Your task to perform on an android device: change the upload size in google photos Image 0: 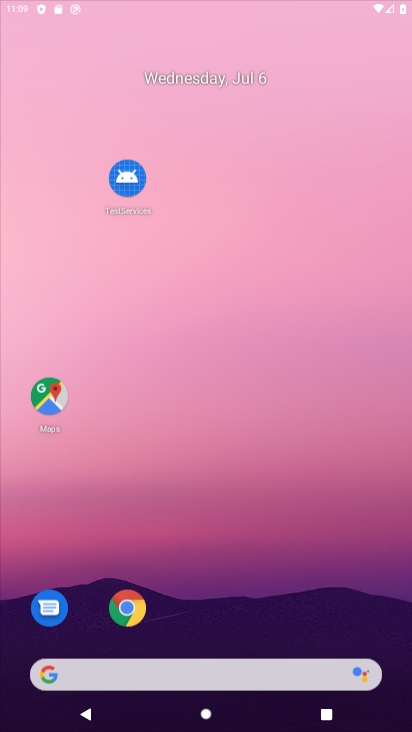
Step 0: click (220, 161)
Your task to perform on an android device: change the upload size in google photos Image 1: 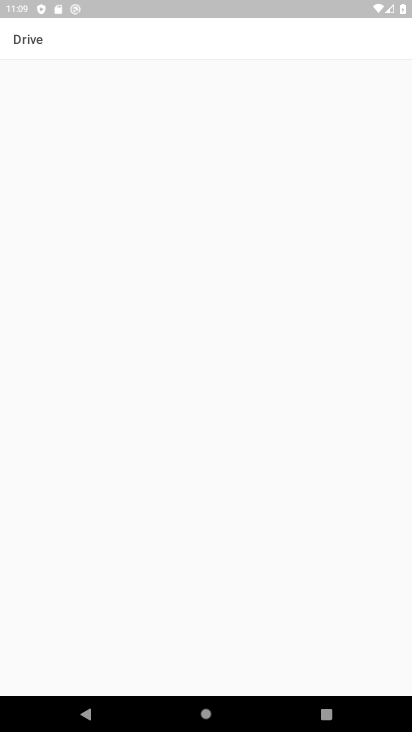
Step 1: drag from (300, 696) to (291, 312)
Your task to perform on an android device: change the upload size in google photos Image 2: 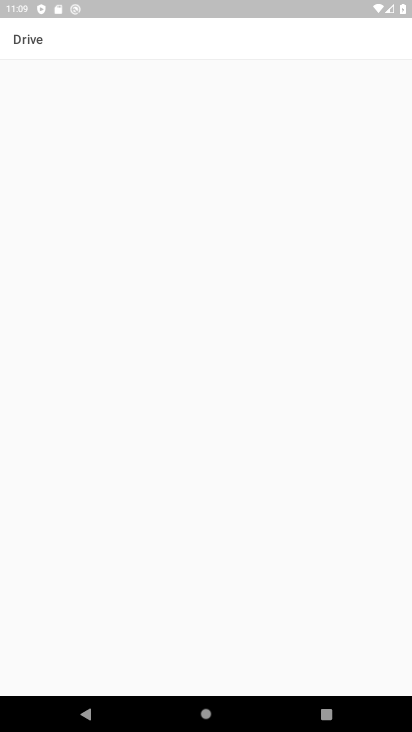
Step 2: press back button
Your task to perform on an android device: change the upload size in google photos Image 3: 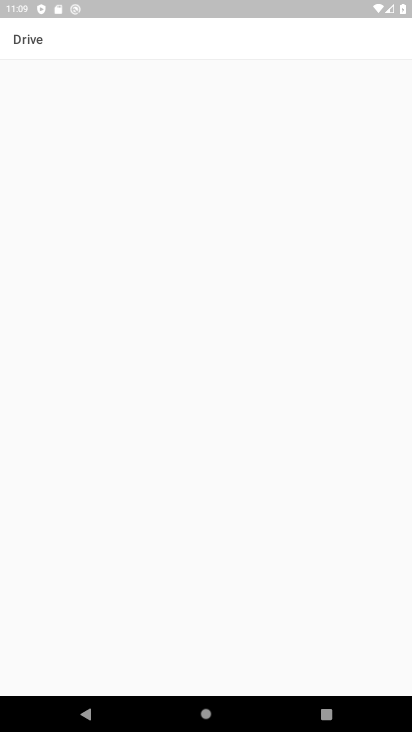
Step 3: press back button
Your task to perform on an android device: change the upload size in google photos Image 4: 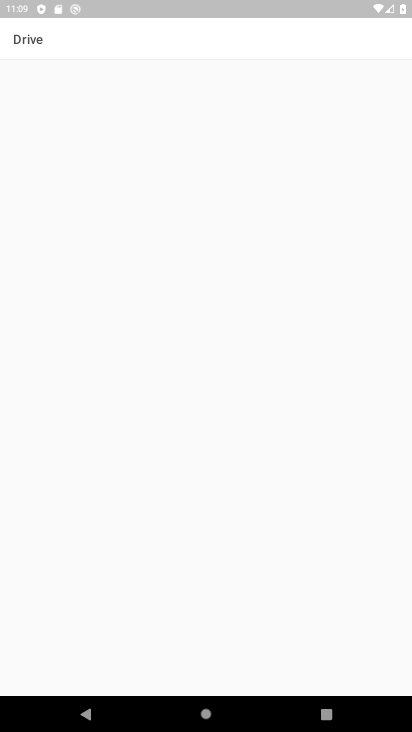
Step 4: press home button
Your task to perform on an android device: change the upload size in google photos Image 5: 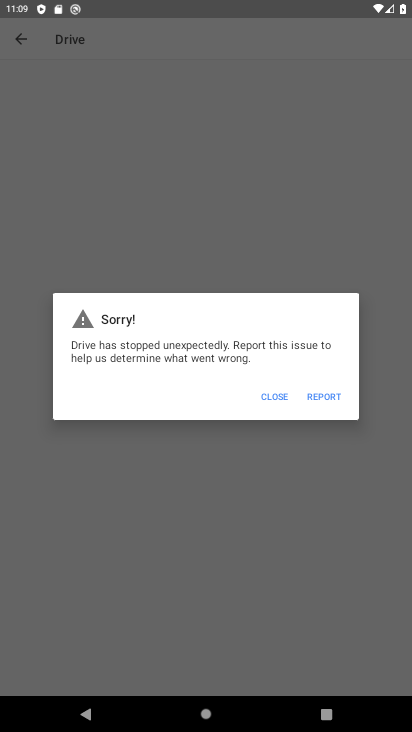
Step 5: press home button
Your task to perform on an android device: change the upload size in google photos Image 6: 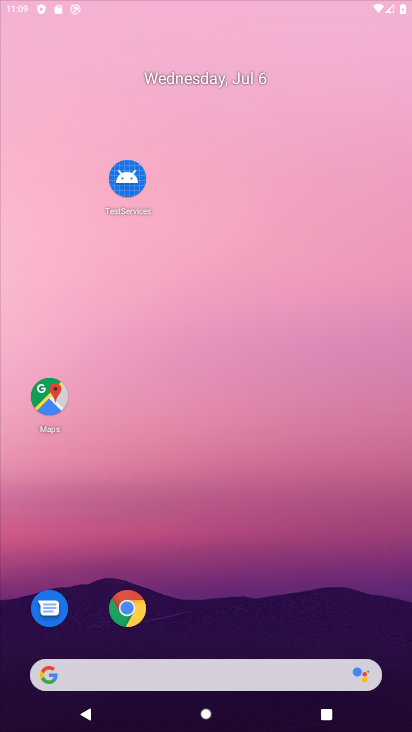
Step 6: press back button
Your task to perform on an android device: change the upload size in google photos Image 7: 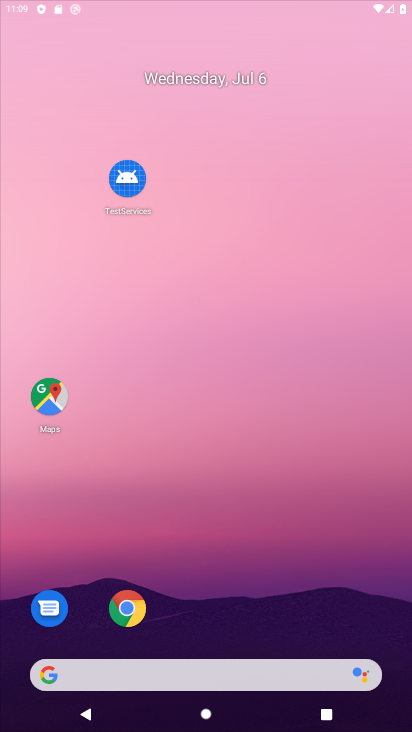
Step 7: press home button
Your task to perform on an android device: change the upload size in google photos Image 8: 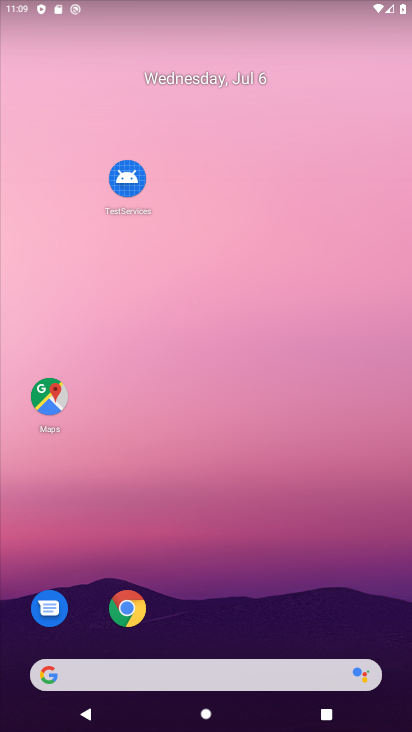
Step 8: drag from (221, 684) to (46, 148)
Your task to perform on an android device: change the upload size in google photos Image 9: 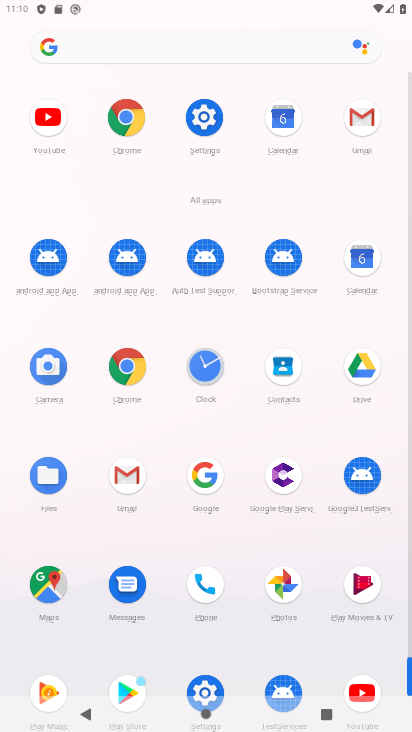
Step 9: click (284, 588)
Your task to perform on an android device: change the upload size in google photos Image 10: 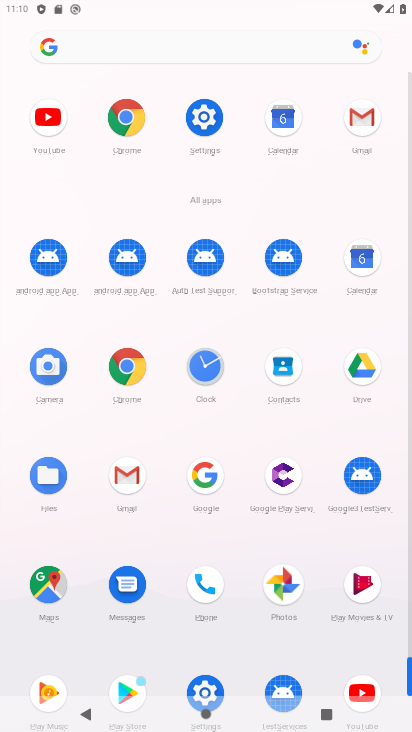
Step 10: click (295, 600)
Your task to perform on an android device: change the upload size in google photos Image 11: 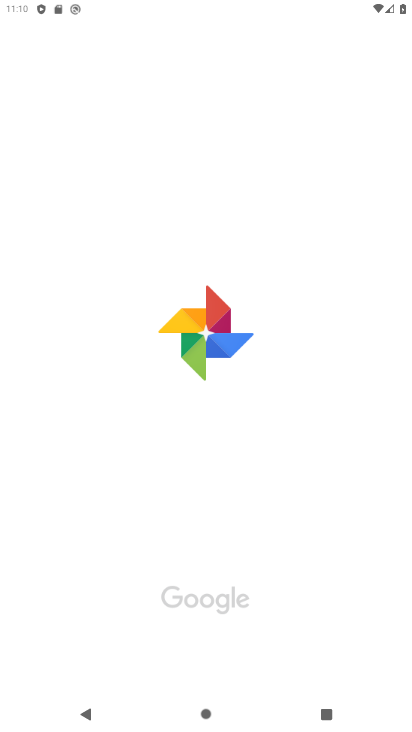
Step 11: click (296, 602)
Your task to perform on an android device: change the upload size in google photos Image 12: 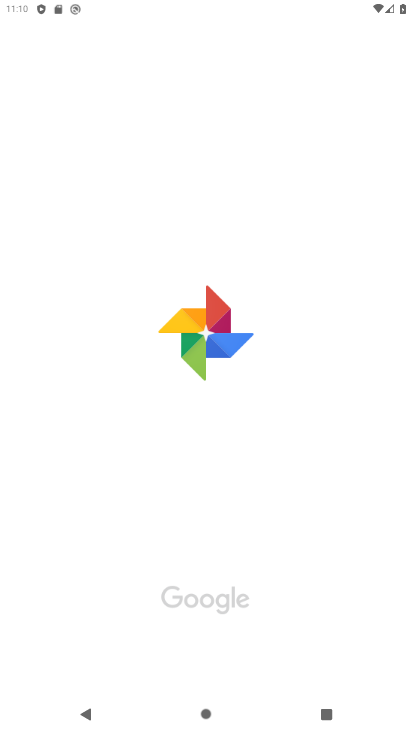
Step 12: click (296, 602)
Your task to perform on an android device: change the upload size in google photos Image 13: 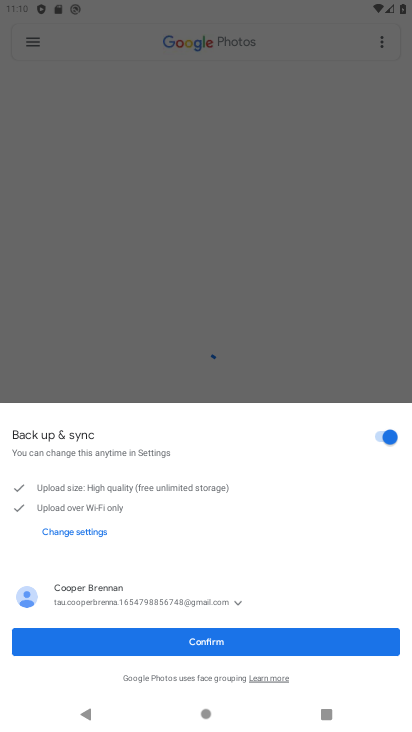
Step 13: click (211, 651)
Your task to perform on an android device: change the upload size in google photos Image 14: 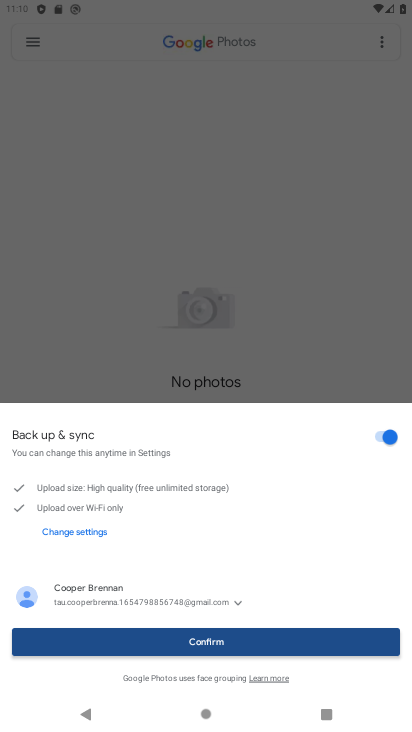
Step 14: click (212, 651)
Your task to perform on an android device: change the upload size in google photos Image 15: 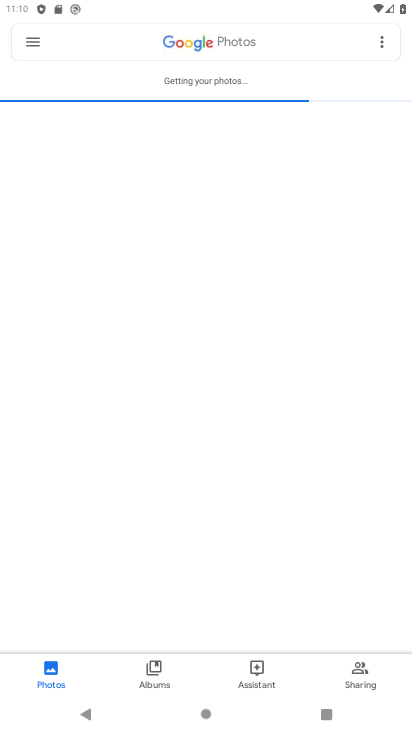
Step 15: click (214, 650)
Your task to perform on an android device: change the upload size in google photos Image 16: 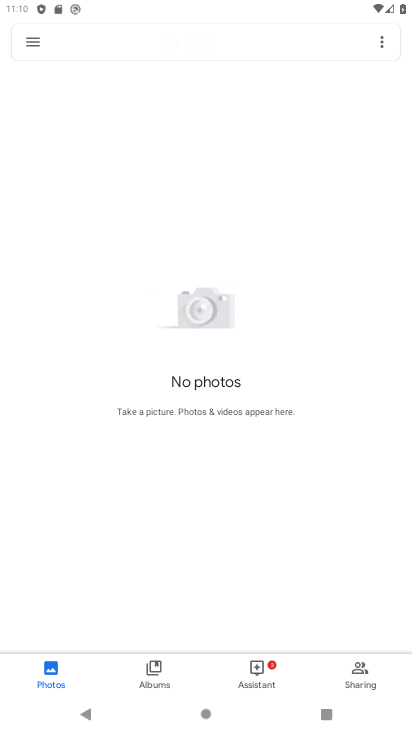
Step 16: press back button
Your task to perform on an android device: change the upload size in google photos Image 17: 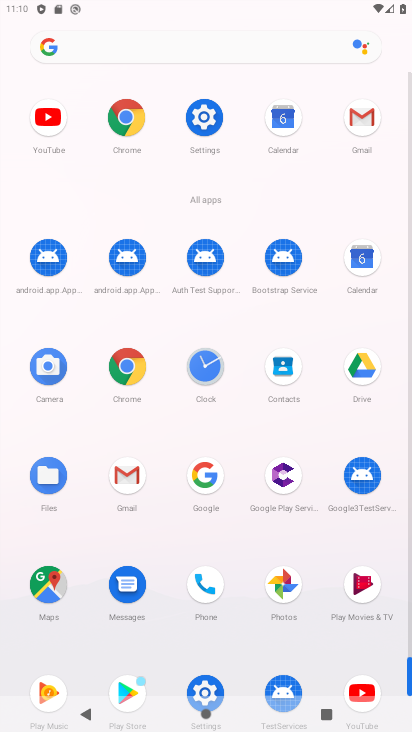
Step 17: click (283, 582)
Your task to perform on an android device: change the upload size in google photos Image 18: 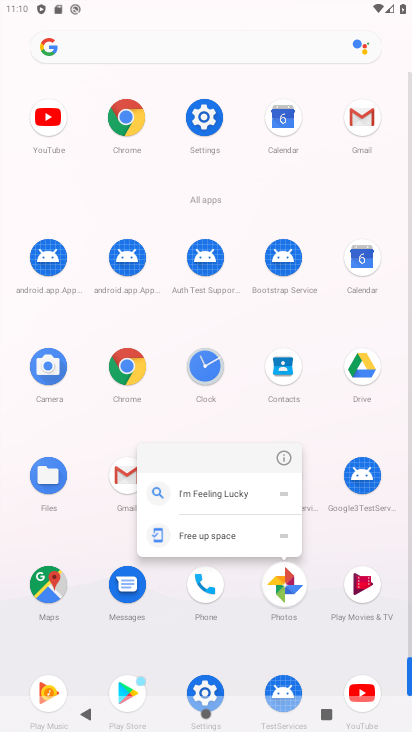
Step 18: click (283, 581)
Your task to perform on an android device: change the upload size in google photos Image 19: 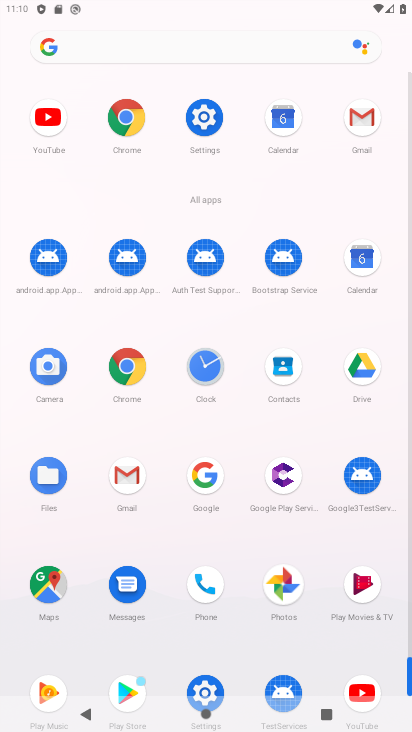
Step 19: click (283, 580)
Your task to perform on an android device: change the upload size in google photos Image 20: 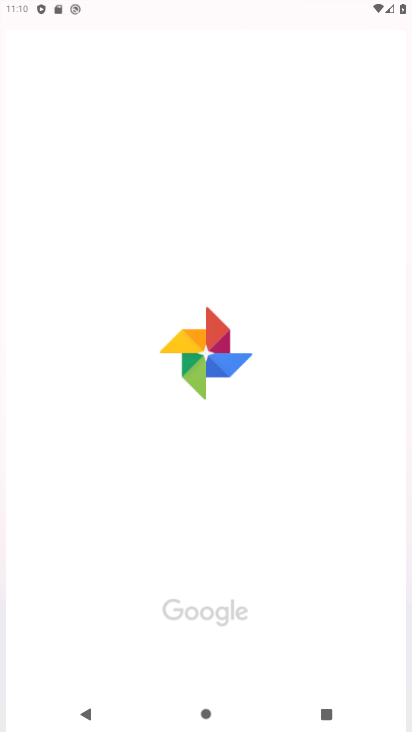
Step 20: click (283, 579)
Your task to perform on an android device: change the upload size in google photos Image 21: 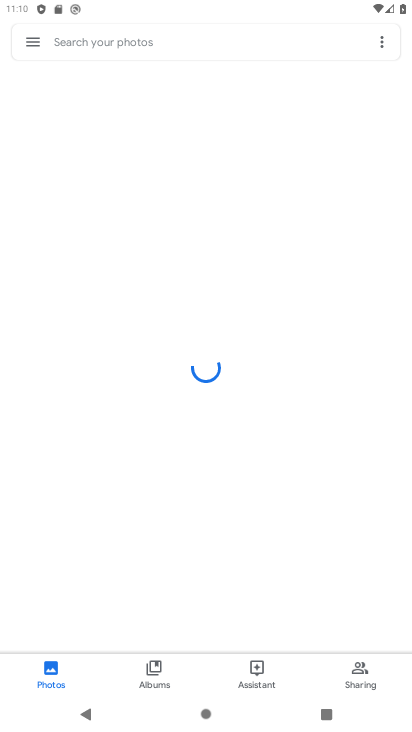
Step 21: click (284, 578)
Your task to perform on an android device: change the upload size in google photos Image 22: 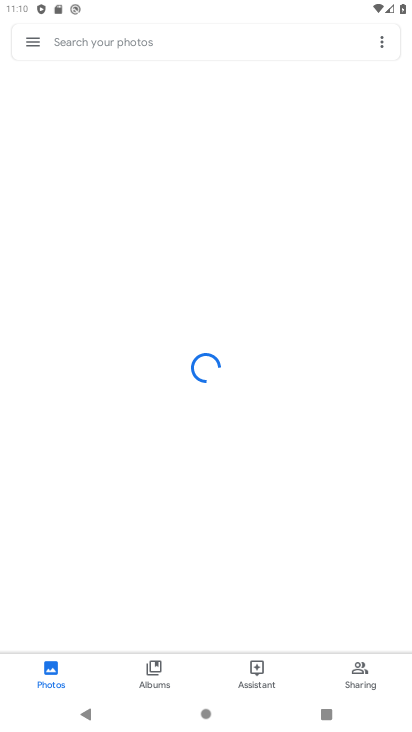
Step 22: click (284, 574)
Your task to perform on an android device: change the upload size in google photos Image 23: 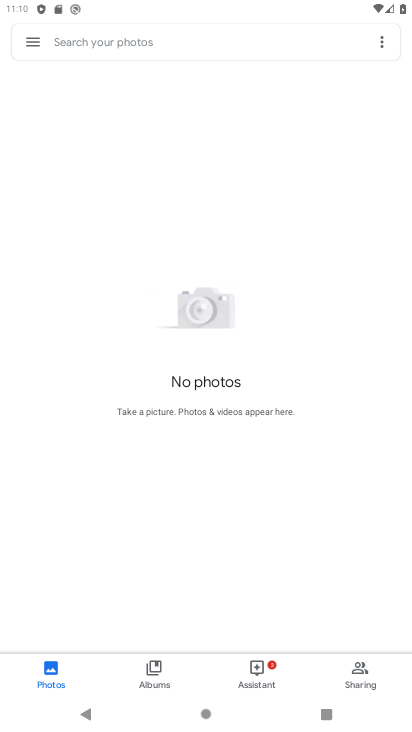
Step 23: click (34, 39)
Your task to perform on an android device: change the upload size in google photos Image 24: 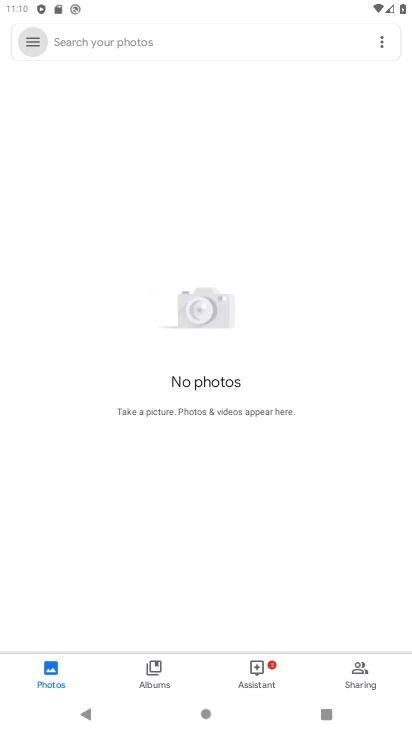
Step 24: click (35, 40)
Your task to perform on an android device: change the upload size in google photos Image 25: 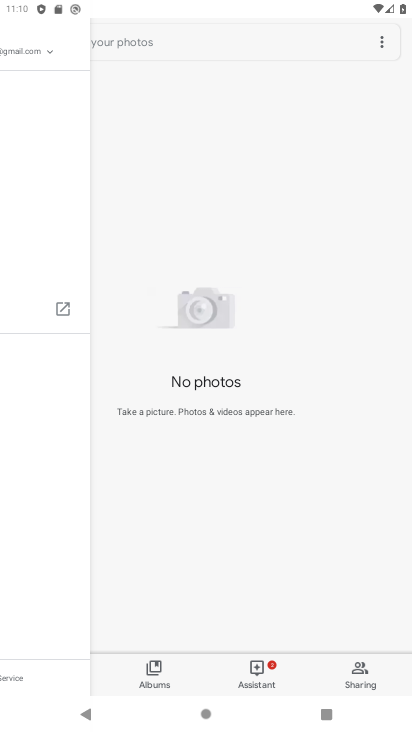
Step 25: click (36, 41)
Your task to perform on an android device: change the upload size in google photos Image 26: 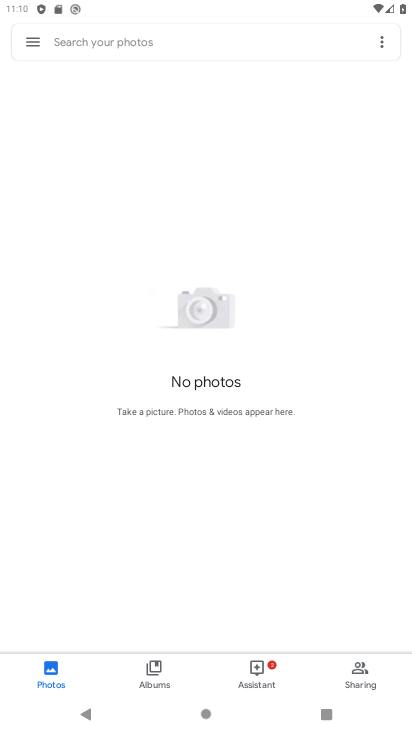
Step 26: click (45, 43)
Your task to perform on an android device: change the upload size in google photos Image 27: 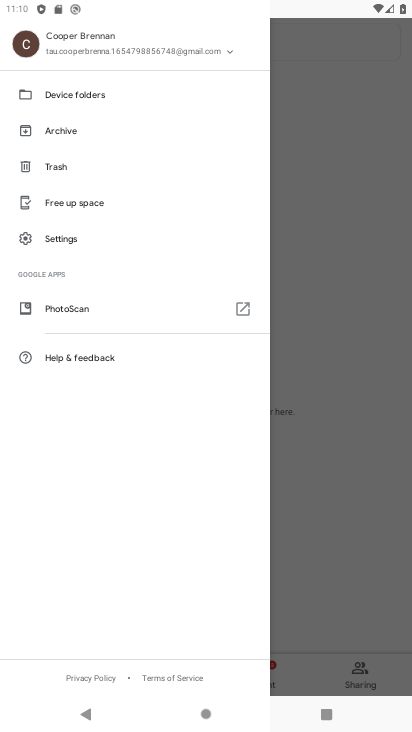
Step 27: click (59, 232)
Your task to perform on an android device: change the upload size in google photos Image 28: 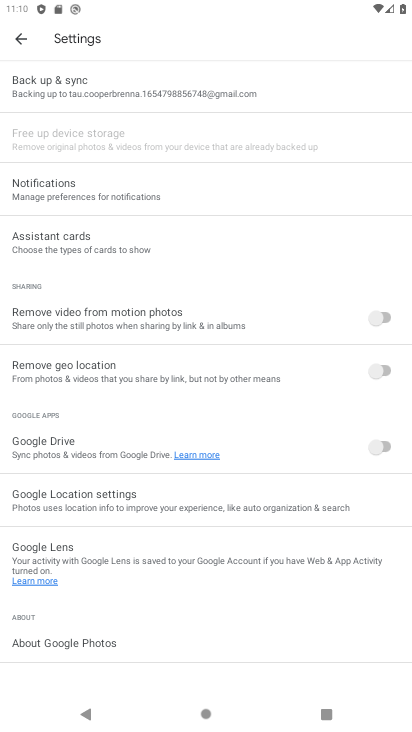
Step 28: task complete